Your task to perform on an android device: Open Chrome and go to settings Image 0: 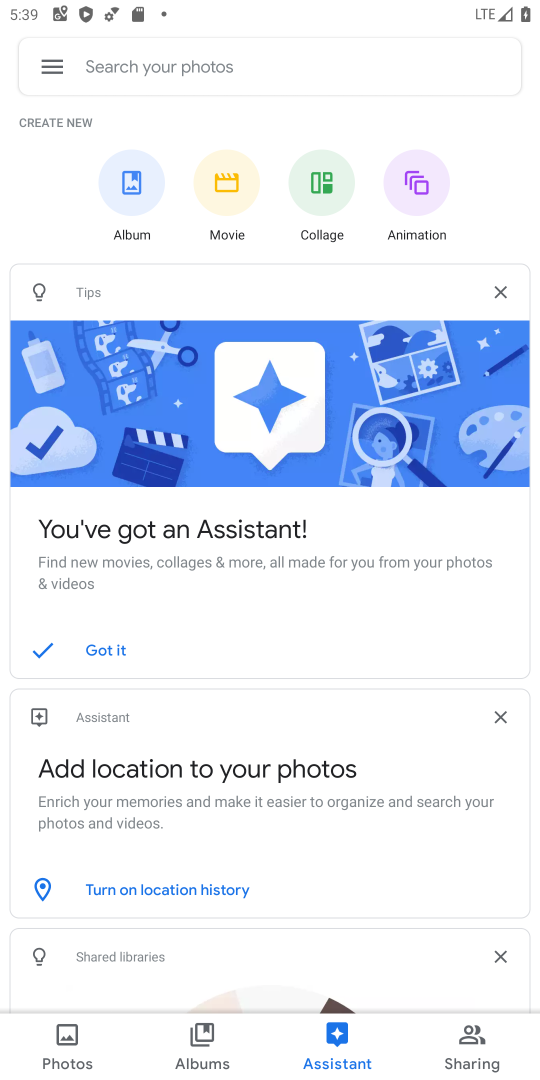
Step 0: press home button
Your task to perform on an android device: Open Chrome and go to settings Image 1: 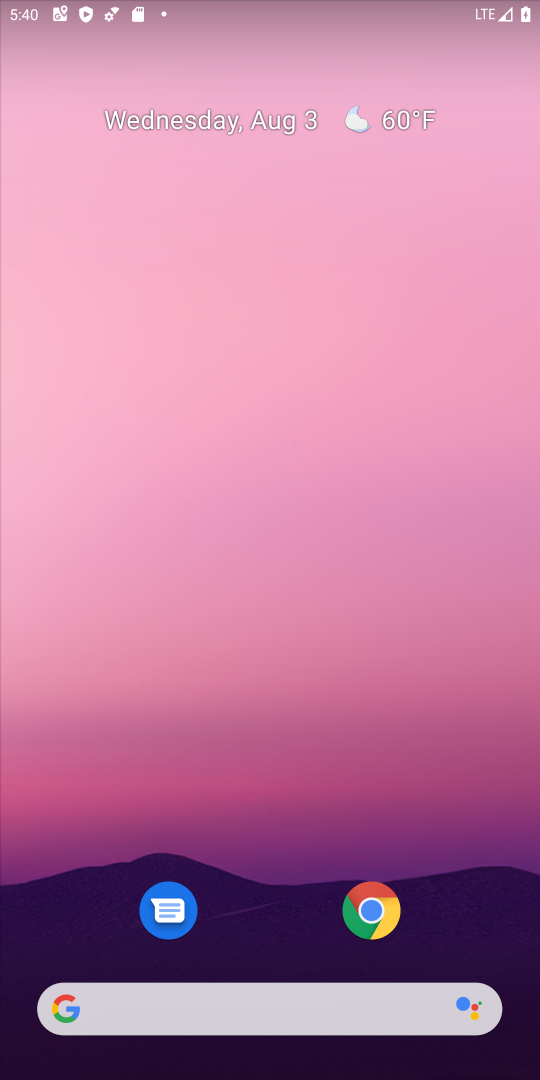
Step 1: drag from (277, 905) to (280, 104)
Your task to perform on an android device: Open Chrome and go to settings Image 2: 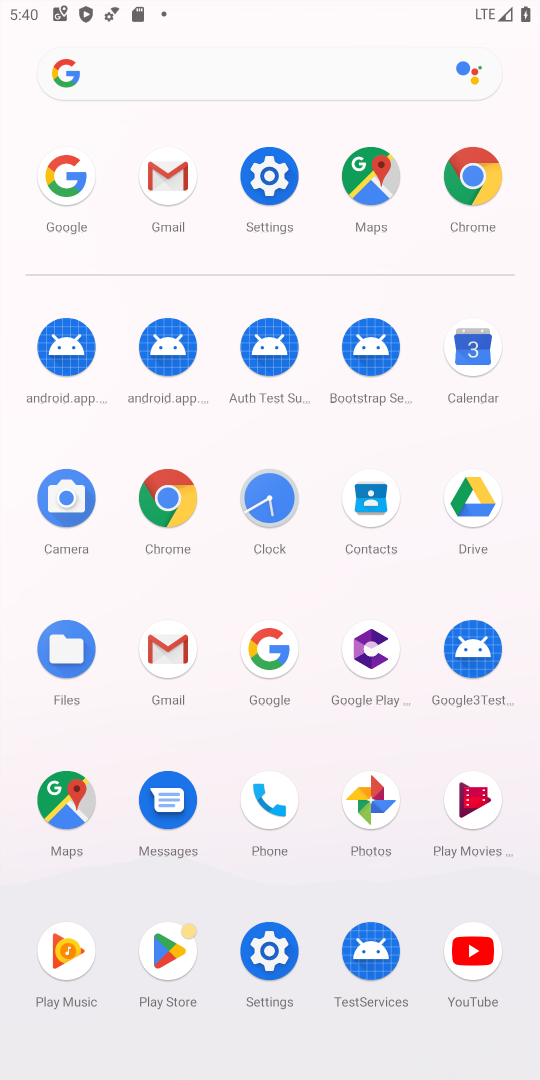
Step 2: click (173, 492)
Your task to perform on an android device: Open Chrome and go to settings Image 3: 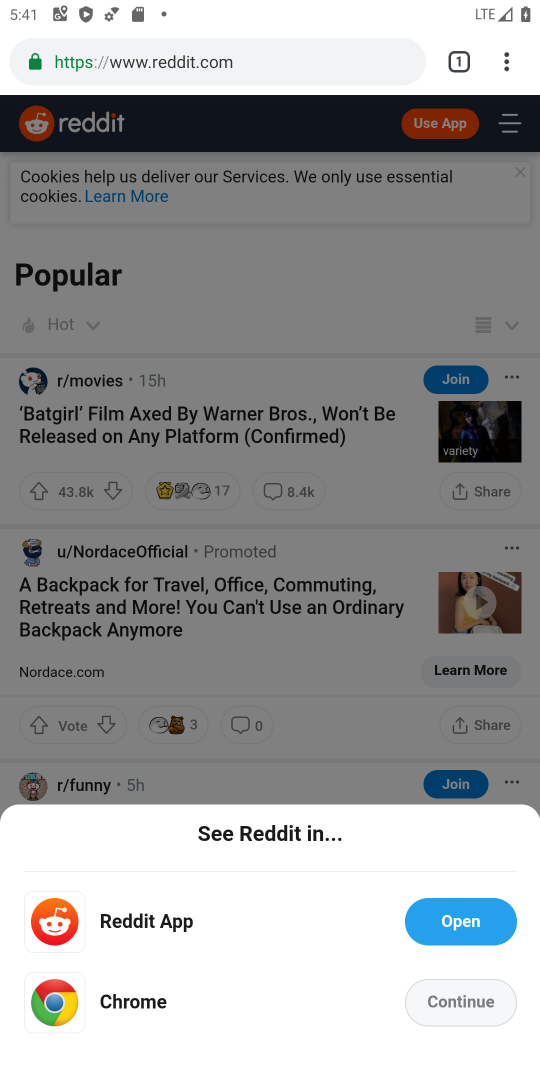
Step 3: task complete